Your task to perform on an android device: open a new tab in the chrome app Image 0: 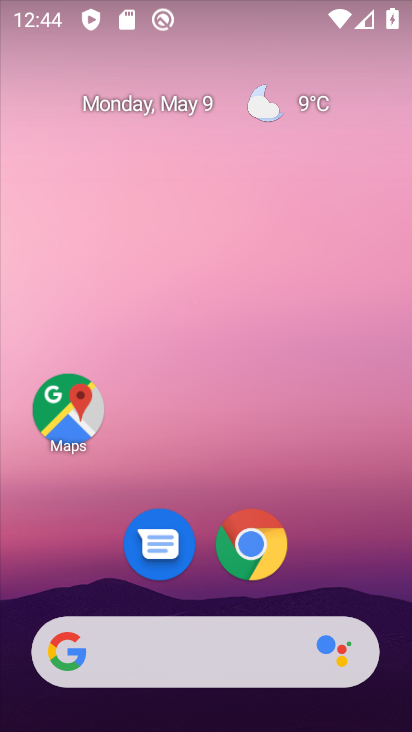
Step 0: click (261, 530)
Your task to perform on an android device: open a new tab in the chrome app Image 1: 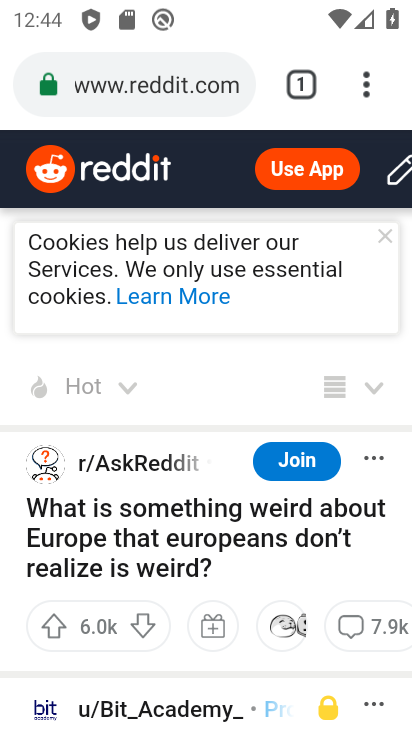
Step 1: click (316, 89)
Your task to perform on an android device: open a new tab in the chrome app Image 2: 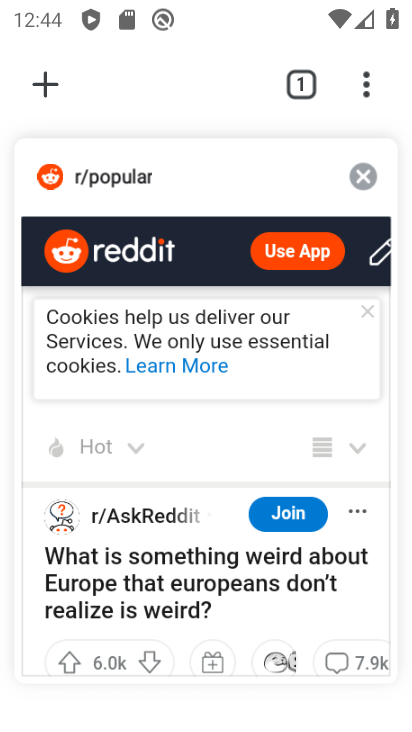
Step 2: click (47, 87)
Your task to perform on an android device: open a new tab in the chrome app Image 3: 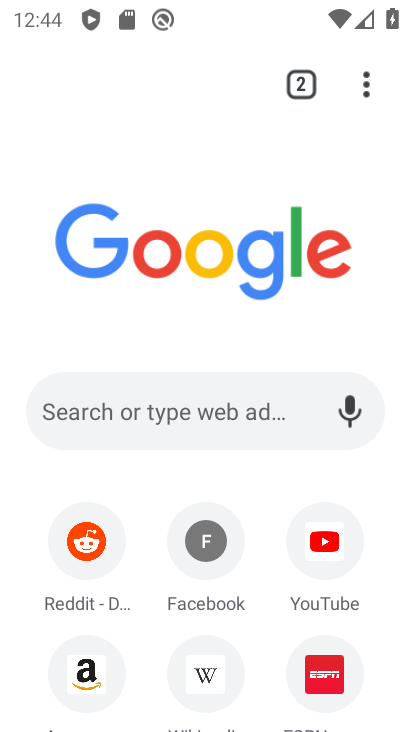
Step 3: task complete